Your task to perform on an android device: toggle location history Image 0: 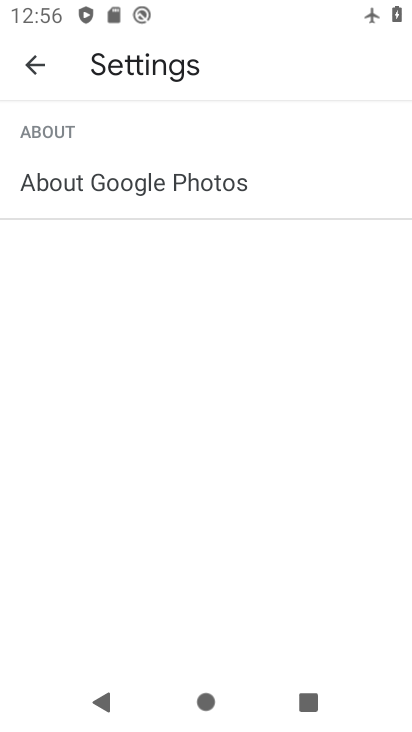
Step 0: press home button
Your task to perform on an android device: toggle location history Image 1: 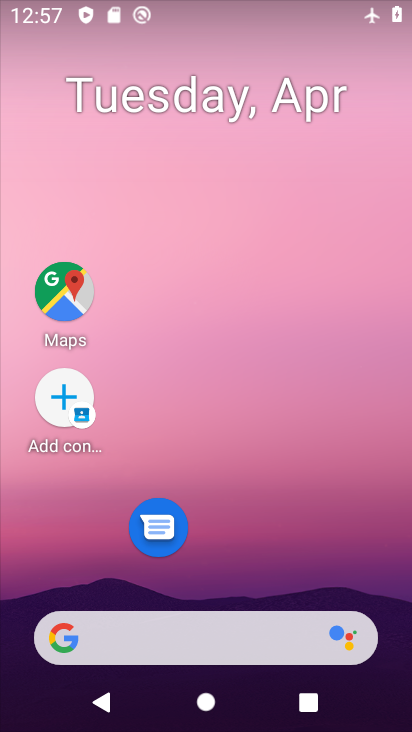
Step 1: drag from (245, 563) to (300, 33)
Your task to perform on an android device: toggle location history Image 2: 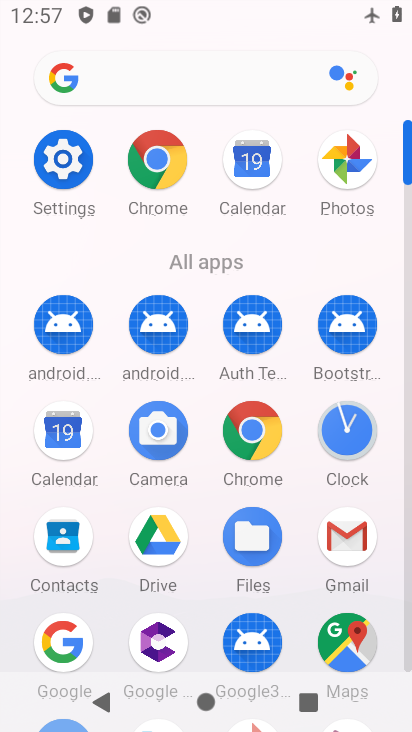
Step 2: click (63, 167)
Your task to perform on an android device: toggle location history Image 3: 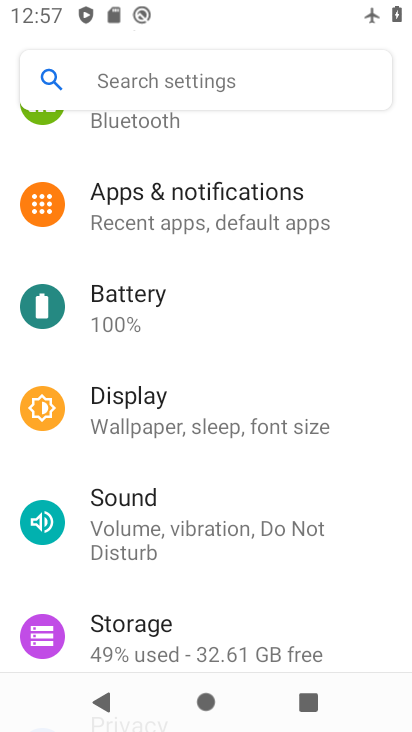
Step 3: drag from (202, 341) to (246, 241)
Your task to perform on an android device: toggle location history Image 4: 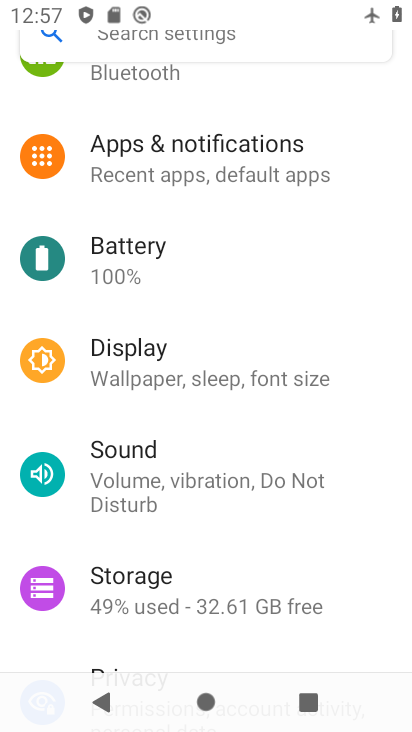
Step 4: drag from (240, 414) to (288, 325)
Your task to perform on an android device: toggle location history Image 5: 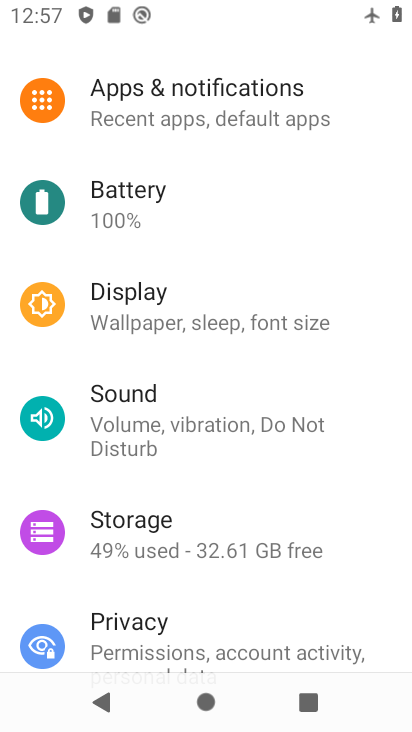
Step 5: drag from (233, 485) to (278, 385)
Your task to perform on an android device: toggle location history Image 6: 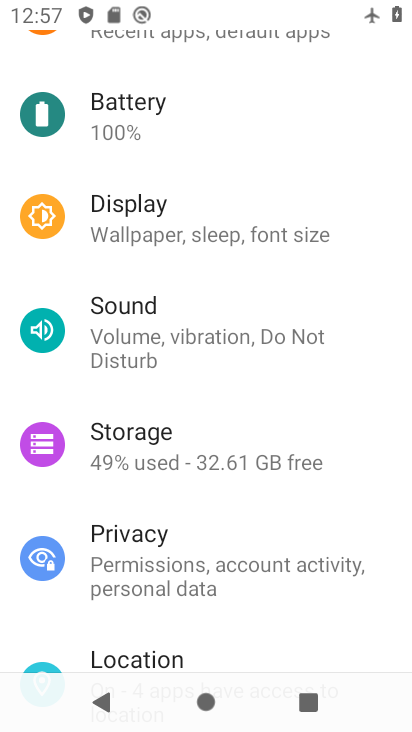
Step 6: drag from (220, 489) to (252, 412)
Your task to perform on an android device: toggle location history Image 7: 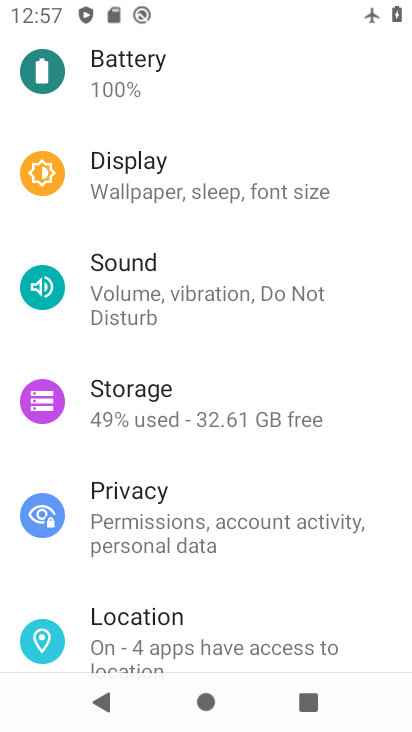
Step 7: drag from (247, 571) to (312, 451)
Your task to perform on an android device: toggle location history Image 8: 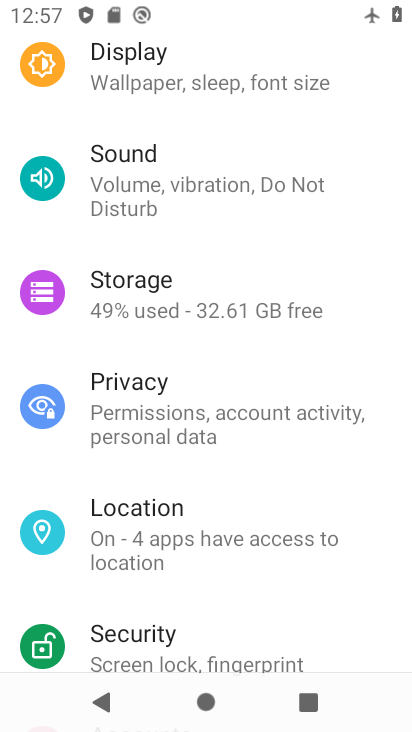
Step 8: click (187, 537)
Your task to perform on an android device: toggle location history Image 9: 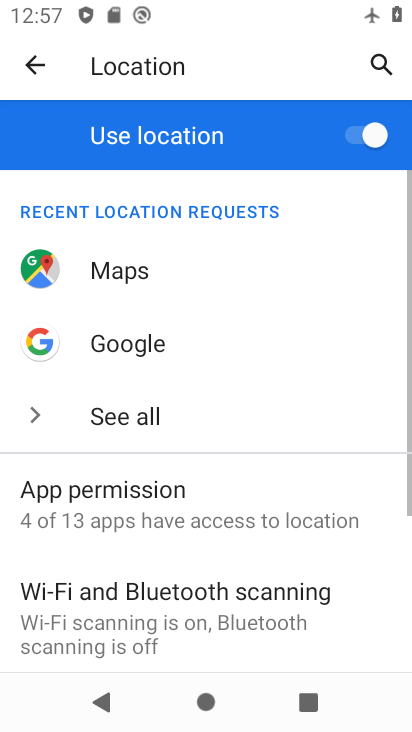
Step 9: drag from (179, 544) to (237, 370)
Your task to perform on an android device: toggle location history Image 10: 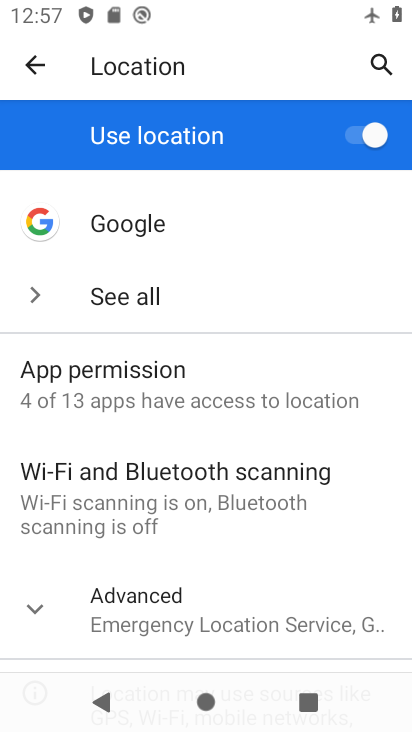
Step 10: click (194, 625)
Your task to perform on an android device: toggle location history Image 11: 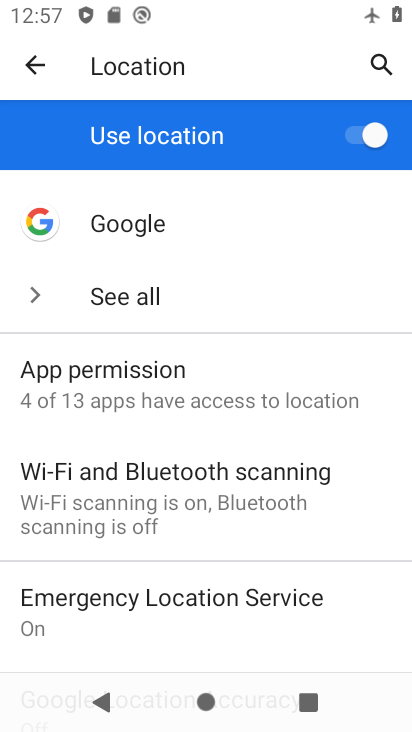
Step 11: drag from (219, 556) to (318, 332)
Your task to perform on an android device: toggle location history Image 12: 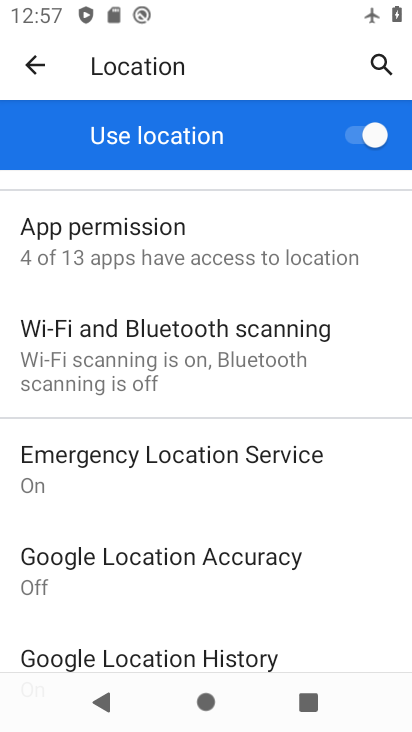
Step 12: drag from (228, 596) to (329, 453)
Your task to perform on an android device: toggle location history Image 13: 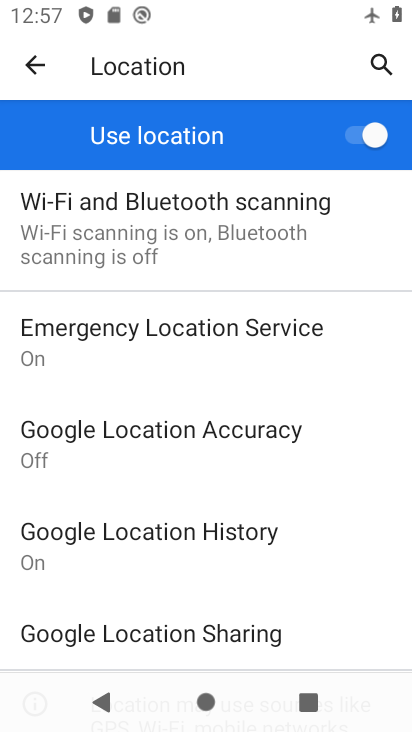
Step 13: click (201, 533)
Your task to perform on an android device: toggle location history Image 14: 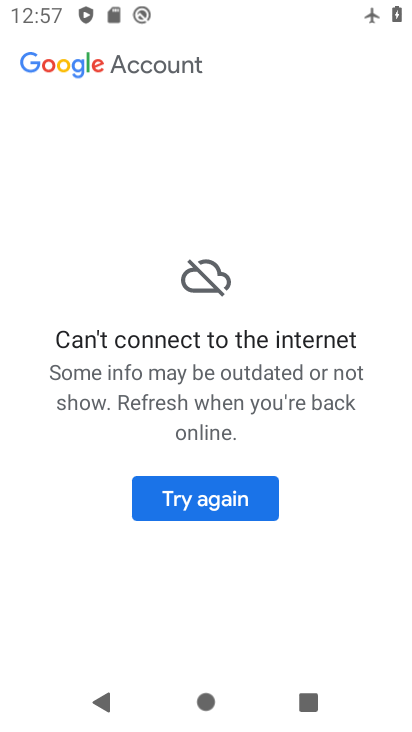
Step 14: click (213, 512)
Your task to perform on an android device: toggle location history Image 15: 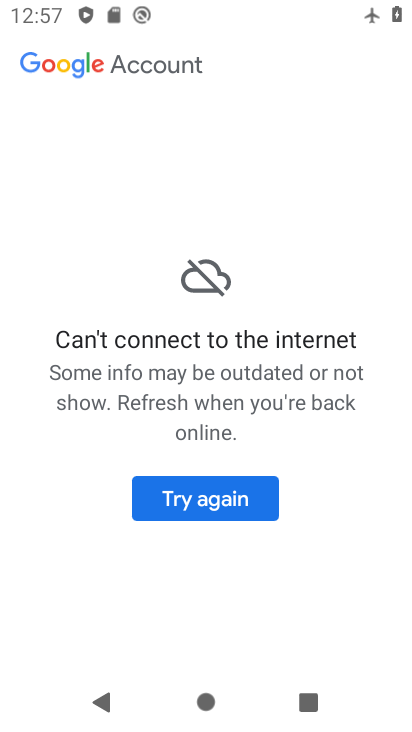
Step 15: press home button
Your task to perform on an android device: toggle location history Image 16: 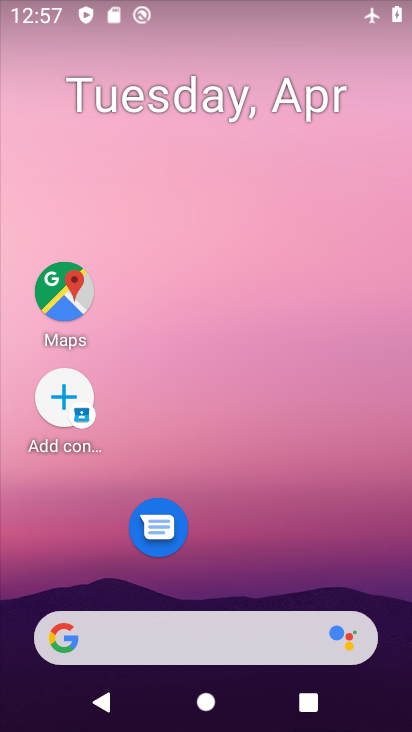
Step 16: drag from (234, 571) to (311, 182)
Your task to perform on an android device: toggle location history Image 17: 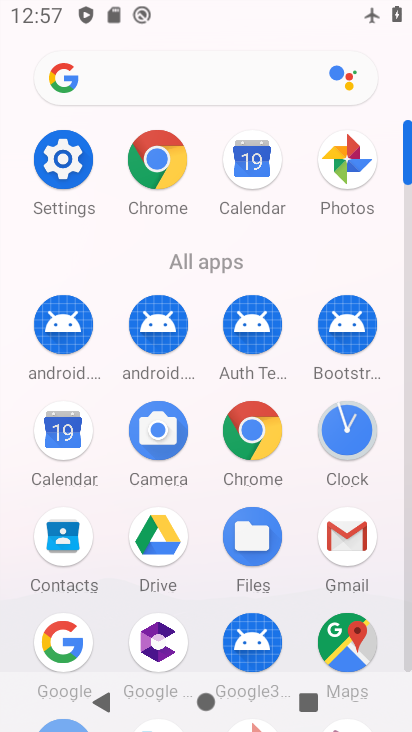
Step 17: click (69, 157)
Your task to perform on an android device: toggle location history Image 18: 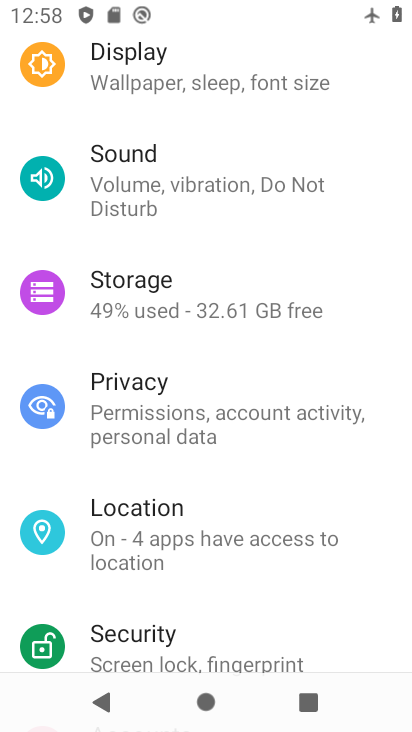
Step 18: drag from (262, 154) to (248, 498)
Your task to perform on an android device: toggle location history Image 19: 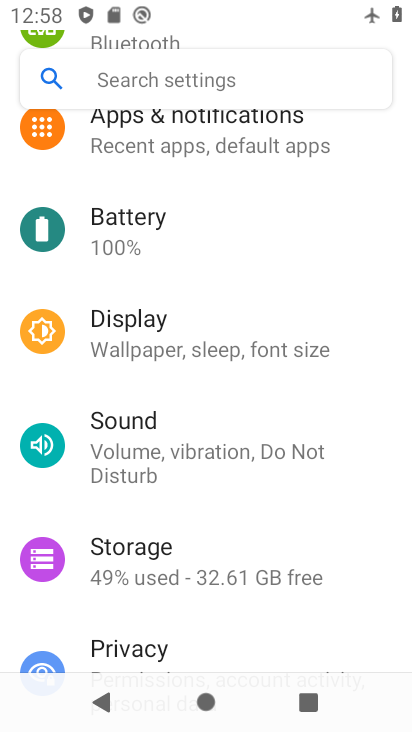
Step 19: drag from (242, 216) to (247, 493)
Your task to perform on an android device: toggle location history Image 20: 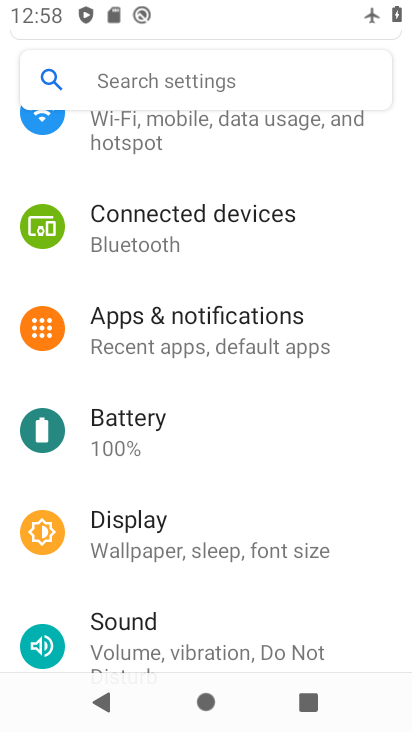
Step 20: drag from (248, 258) to (244, 406)
Your task to perform on an android device: toggle location history Image 21: 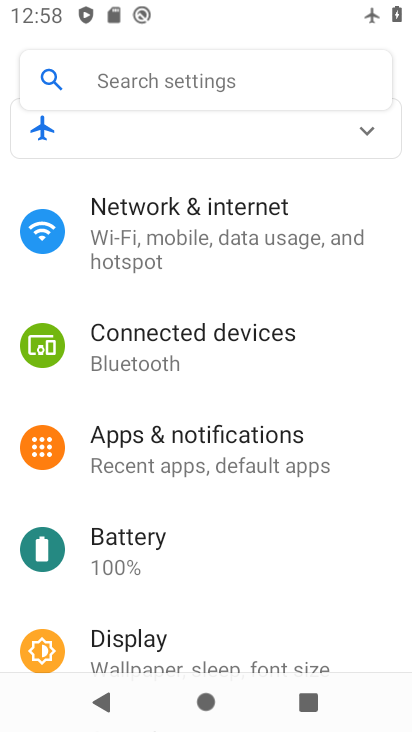
Step 21: click (212, 248)
Your task to perform on an android device: toggle location history Image 22: 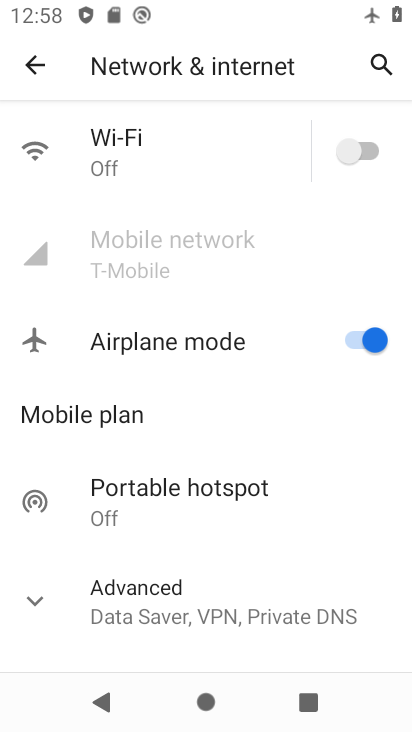
Step 22: click (372, 345)
Your task to perform on an android device: toggle location history Image 23: 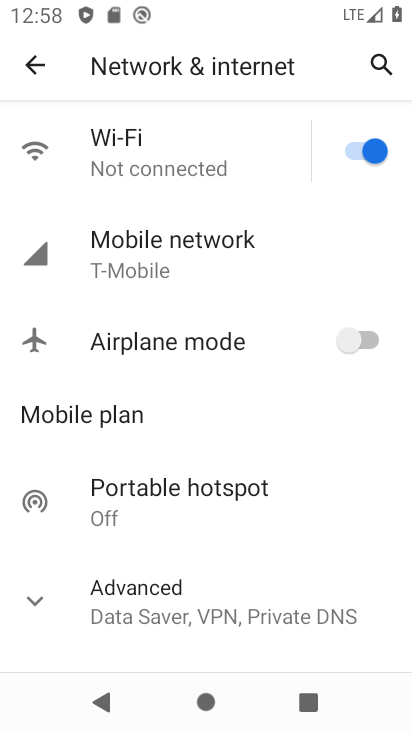
Step 23: press back button
Your task to perform on an android device: toggle location history Image 24: 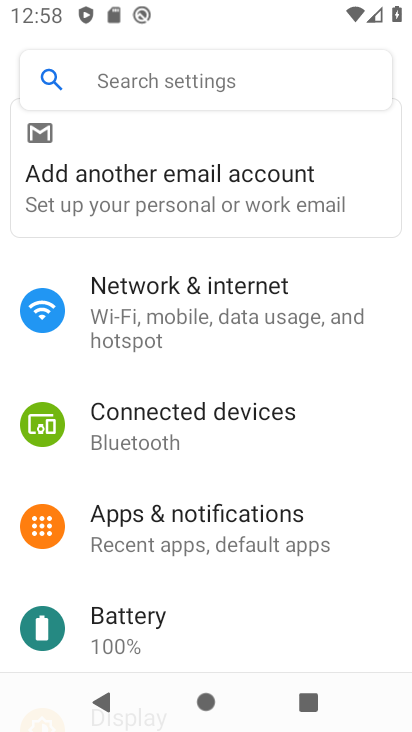
Step 24: drag from (259, 466) to (321, 315)
Your task to perform on an android device: toggle location history Image 25: 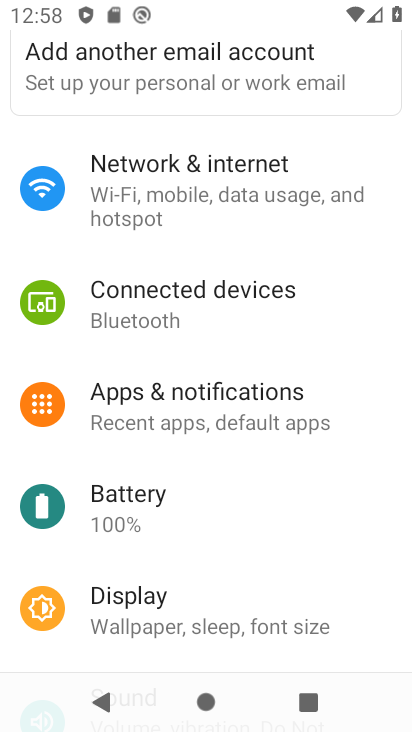
Step 25: drag from (216, 479) to (288, 356)
Your task to perform on an android device: toggle location history Image 26: 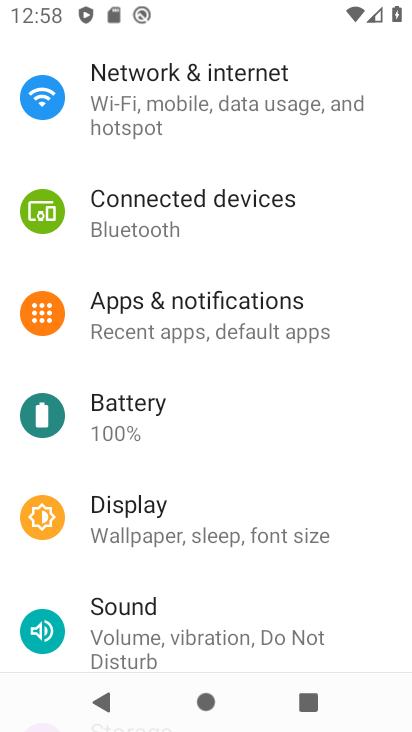
Step 26: drag from (238, 485) to (314, 374)
Your task to perform on an android device: toggle location history Image 27: 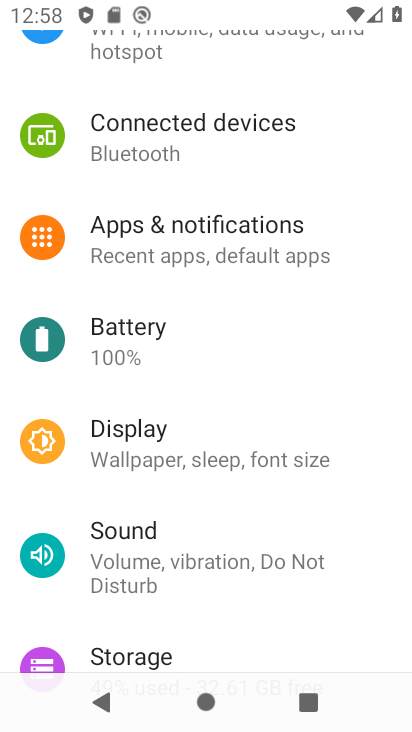
Step 27: drag from (243, 529) to (320, 365)
Your task to perform on an android device: toggle location history Image 28: 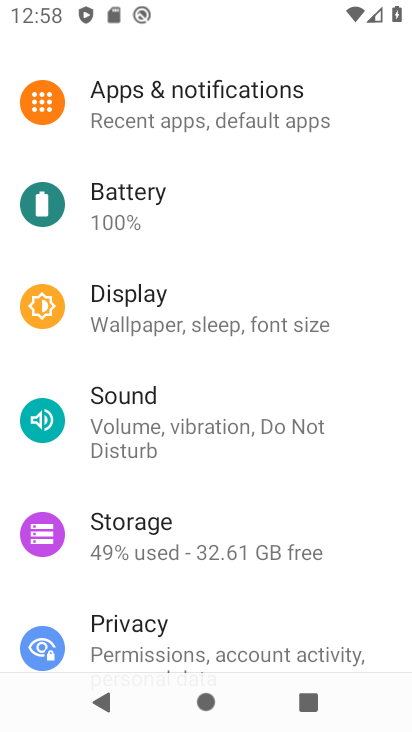
Step 28: drag from (219, 528) to (285, 381)
Your task to perform on an android device: toggle location history Image 29: 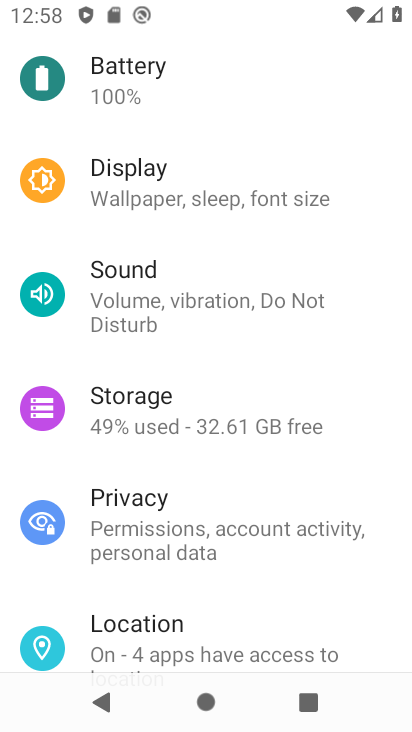
Step 29: drag from (212, 512) to (327, 376)
Your task to perform on an android device: toggle location history Image 30: 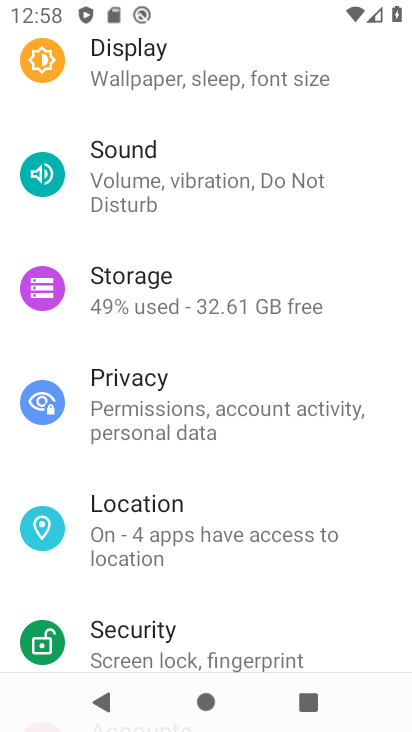
Step 30: click (192, 541)
Your task to perform on an android device: toggle location history Image 31: 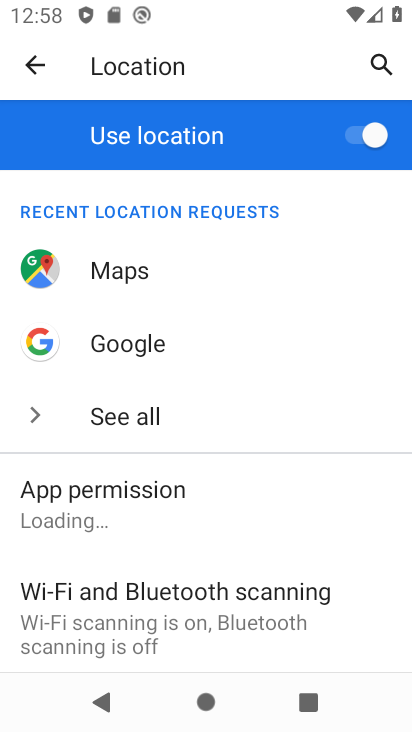
Step 31: drag from (186, 551) to (284, 342)
Your task to perform on an android device: toggle location history Image 32: 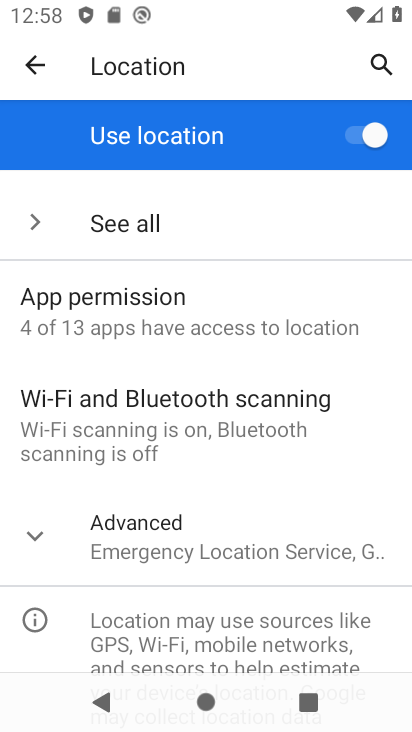
Step 32: click (214, 552)
Your task to perform on an android device: toggle location history Image 33: 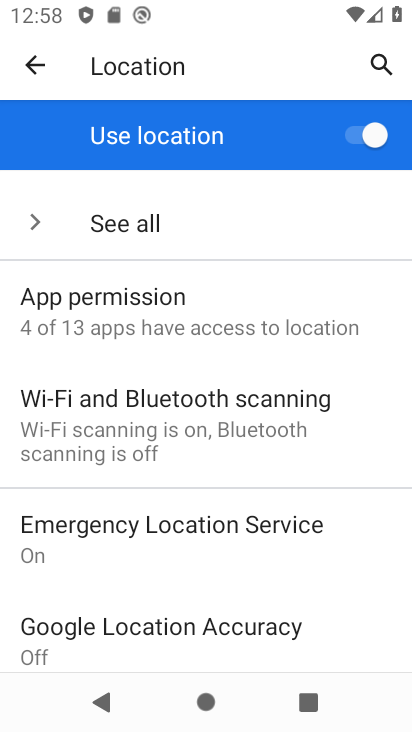
Step 33: drag from (202, 576) to (304, 391)
Your task to perform on an android device: toggle location history Image 34: 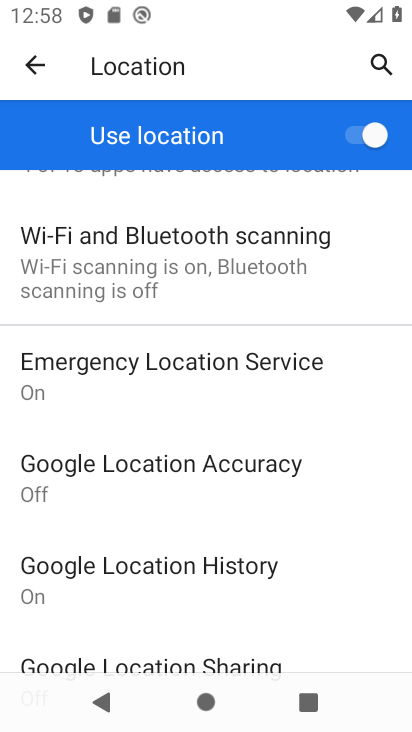
Step 34: click (178, 564)
Your task to perform on an android device: toggle location history Image 35: 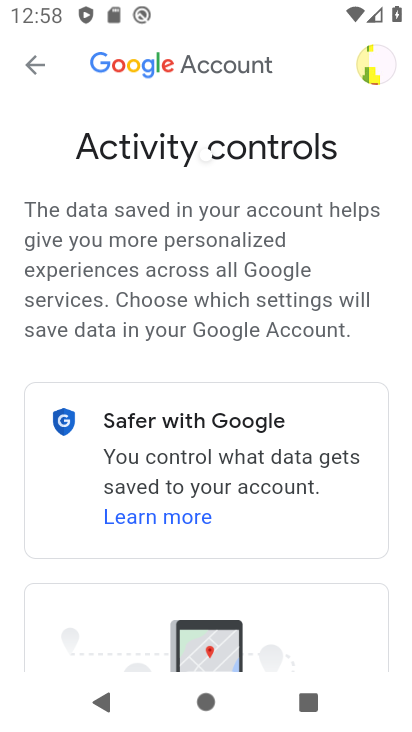
Step 35: drag from (280, 610) to (338, 404)
Your task to perform on an android device: toggle location history Image 36: 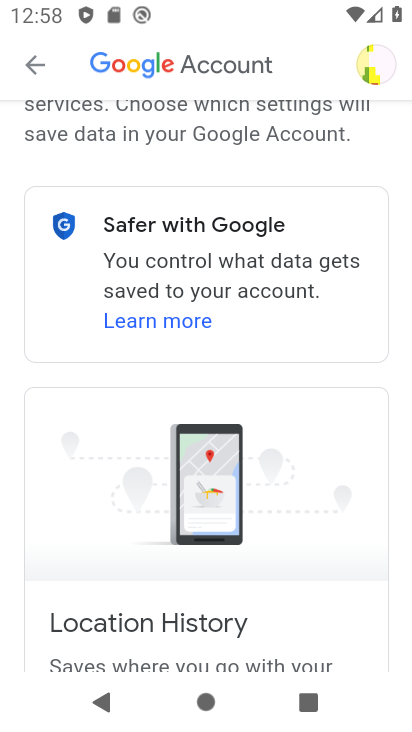
Step 36: drag from (308, 555) to (342, 396)
Your task to perform on an android device: toggle location history Image 37: 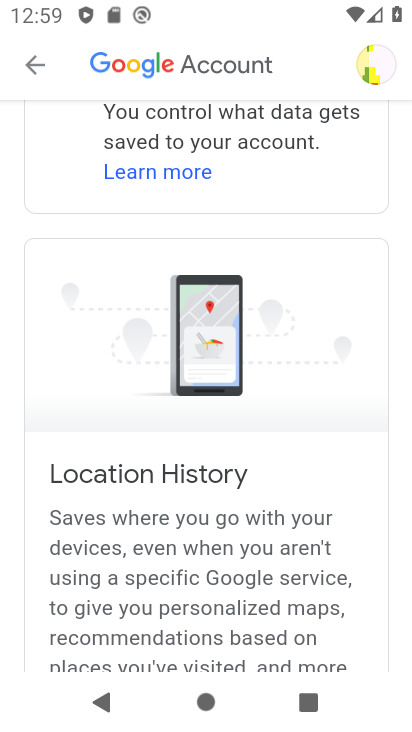
Step 37: drag from (286, 601) to (331, 334)
Your task to perform on an android device: toggle location history Image 38: 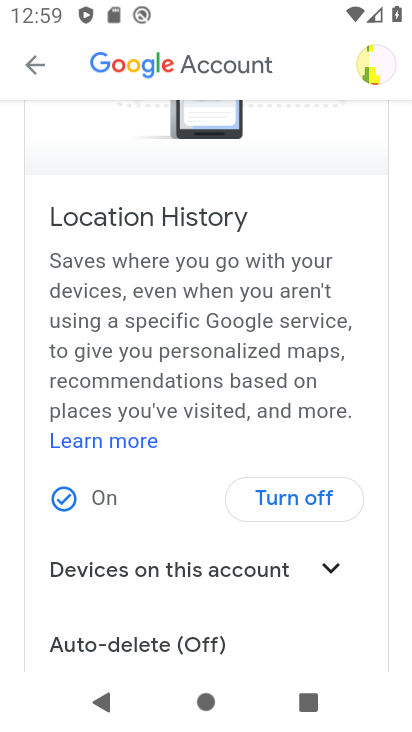
Step 38: click (293, 493)
Your task to perform on an android device: toggle location history Image 39: 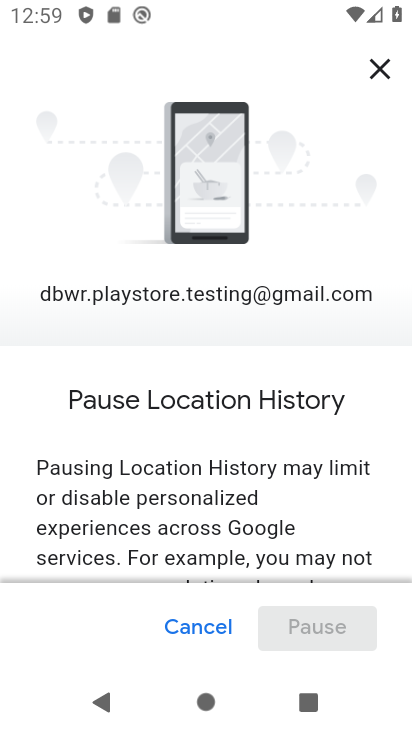
Step 39: drag from (256, 552) to (316, 357)
Your task to perform on an android device: toggle location history Image 40: 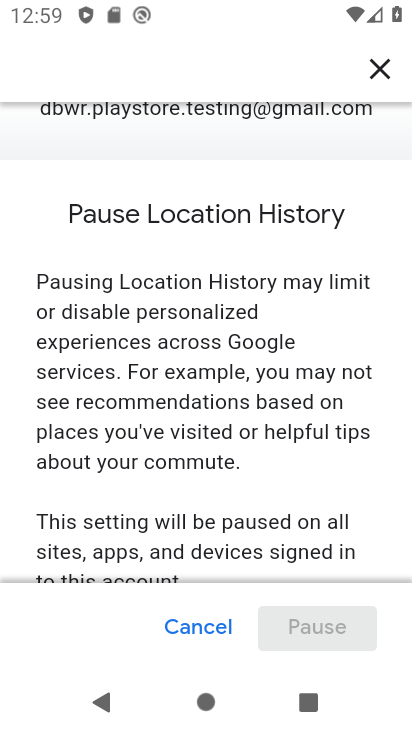
Step 40: drag from (292, 547) to (348, 313)
Your task to perform on an android device: toggle location history Image 41: 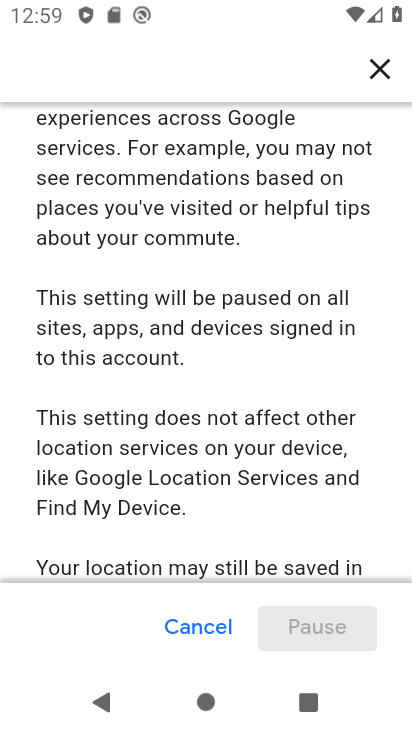
Step 41: drag from (326, 498) to (359, 304)
Your task to perform on an android device: toggle location history Image 42: 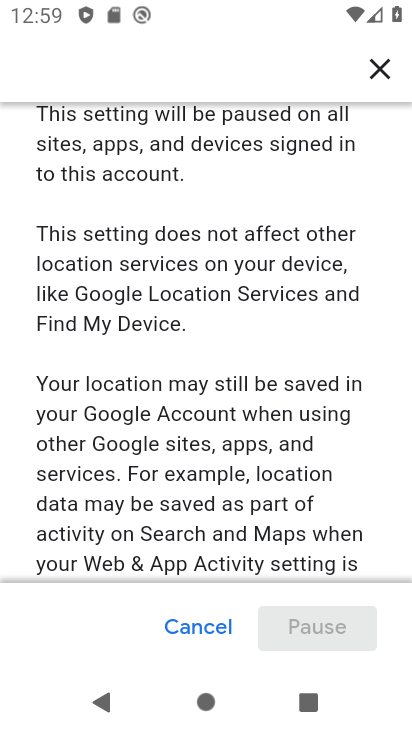
Step 42: drag from (318, 557) to (358, 315)
Your task to perform on an android device: toggle location history Image 43: 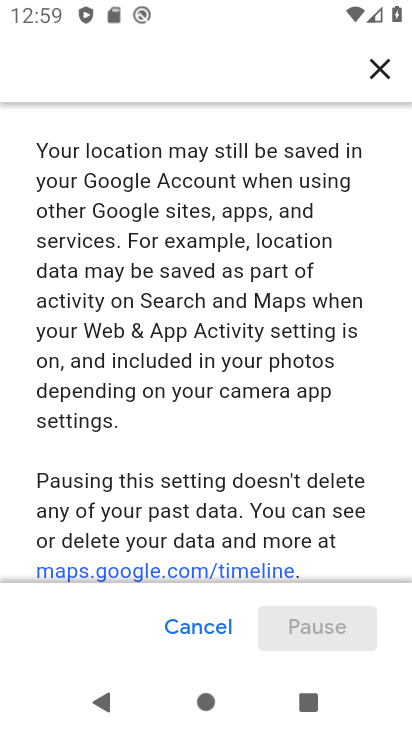
Step 43: drag from (302, 505) to (356, 282)
Your task to perform on an android device: toggle location history Image 44: 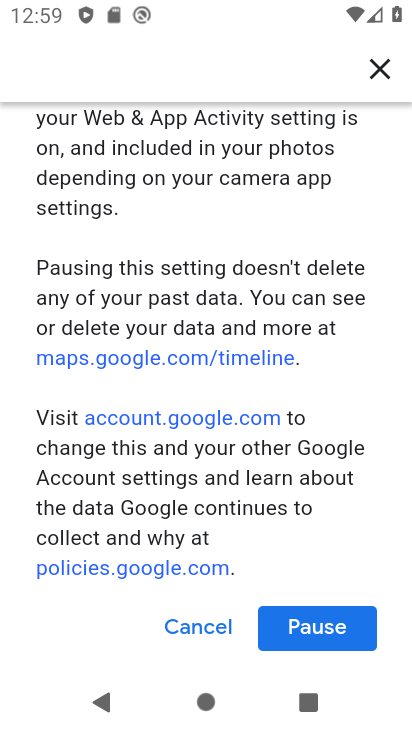
Step 44: click (308, 632)
Your task to perform on an android device: toggle location history Image 45: 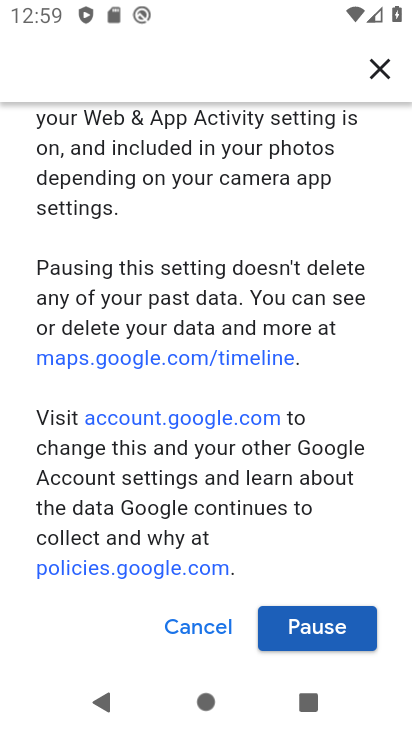
Step 45: click (308, 629)
Your task to perform on an android device: toggle location history Image 46: 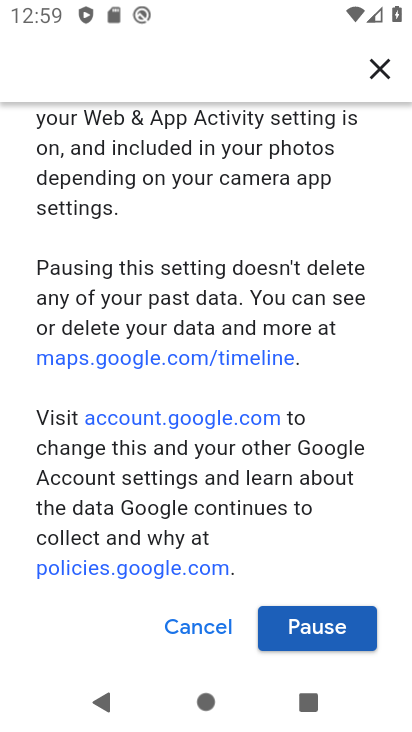
Step 46: click (313, 639)
Your task to perform on an android device: toggle location history Image 47: 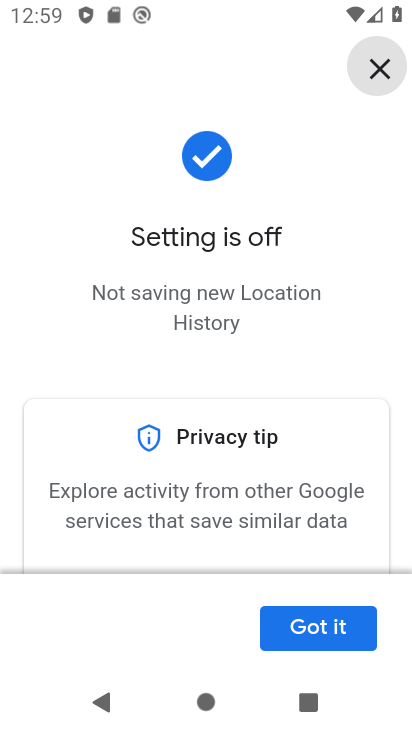
Step 47: task complete